Your task to perform on an android device: Search for the best rated lawnmower on Lowes.com Image 0: 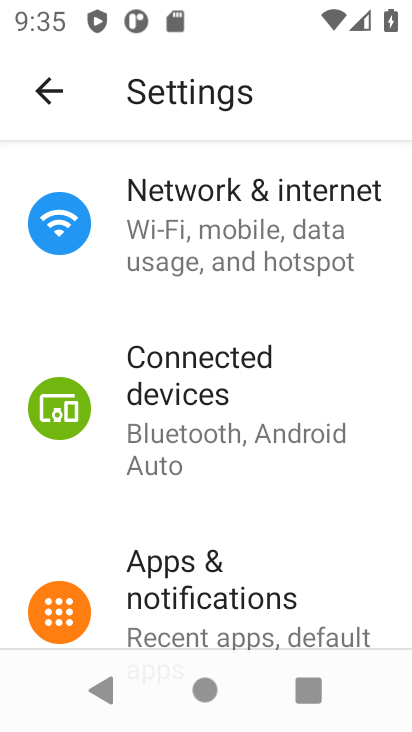
Step 0: press home button
Your task to perform on an android device: Search for the best rated lawnmower on Lowes.com Image 1: 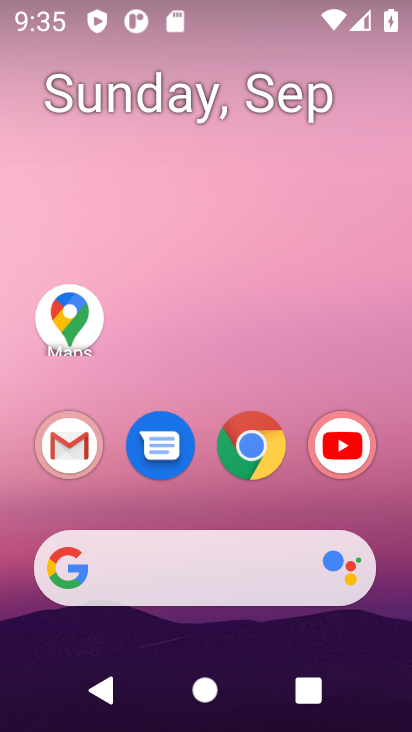
Step 1: drag from (284, 541) to (313, 6)
Your task to perform on an android device: Search for the best rated lawnmower on Lowes.com Image 2: 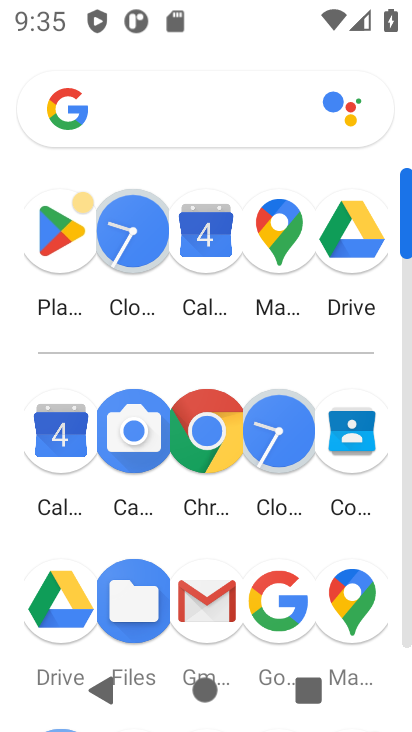
Step 2: click (220, 462)
Your task to perform on an android device: Search for the best rated lawnmower on Lowes.com Image 3: 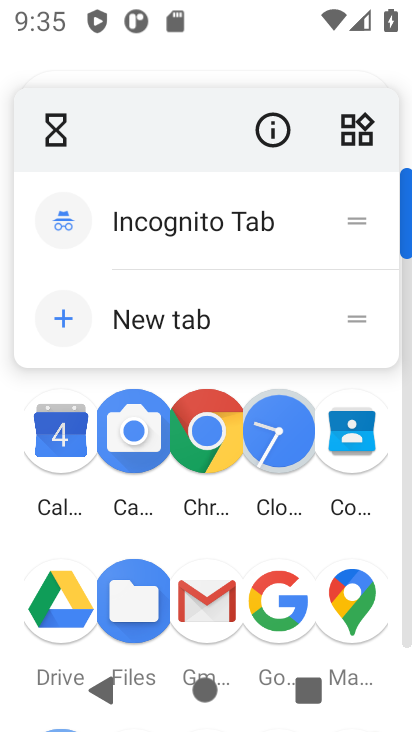
Step 3: click (216, 397)
Your task to perform on an android device: Search for the best rated lawnmower on Lowes.com Image 4: 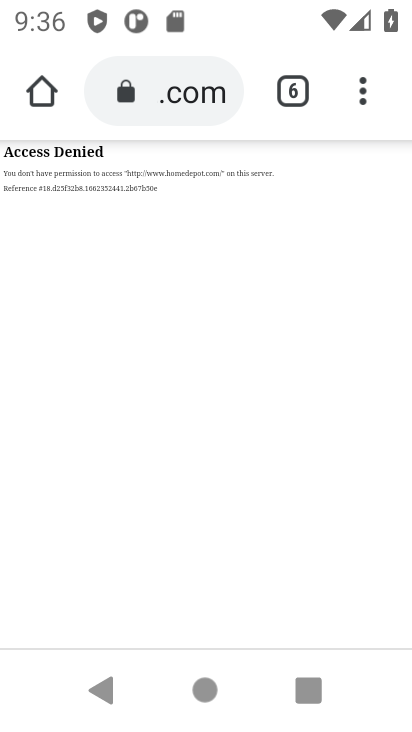
Step 4: click (206, 91)
Your task to perform on an android device: Search for the best rated lawnmower on Lowes.com Image 5: 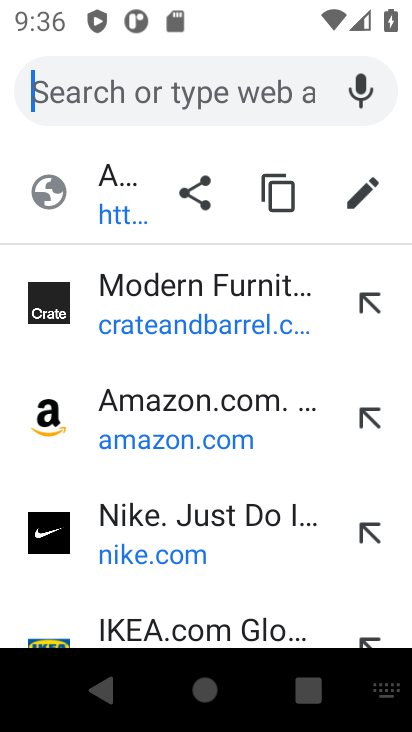
Step 5: type "Lowes.com"
Your task to perform on an android device: Search for the best rated lawnmower on Lowes.com Image 6: 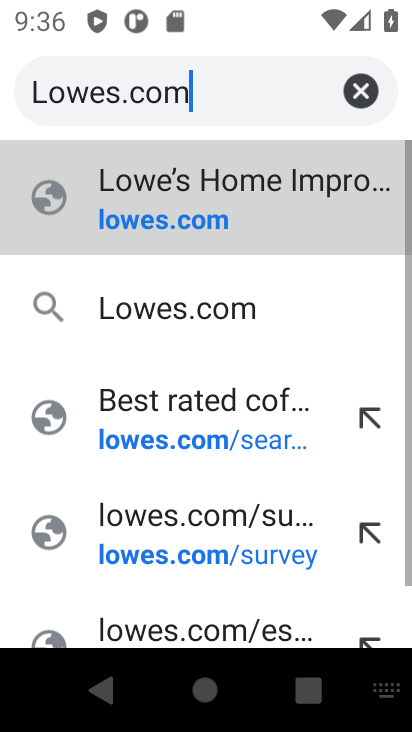
Step 6: press enter
Your task to perform on an android device: Search for the best rated lawnmower on Lowes.com Image 7: 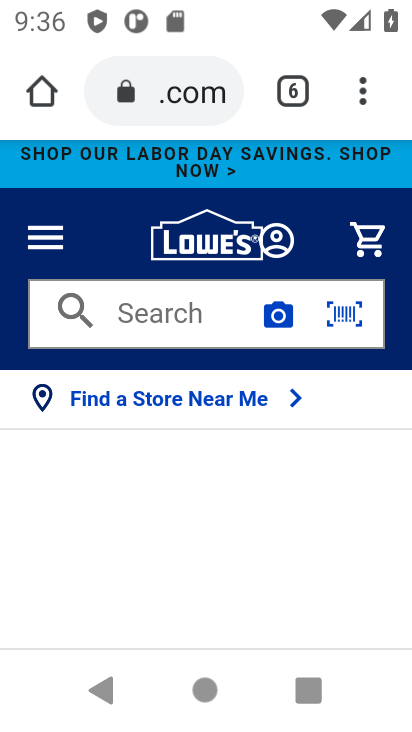
Step 7: click (175, 339)
Your task to perform on an android device: Search for the best rated lawnmower on Lowes.com Image 8: 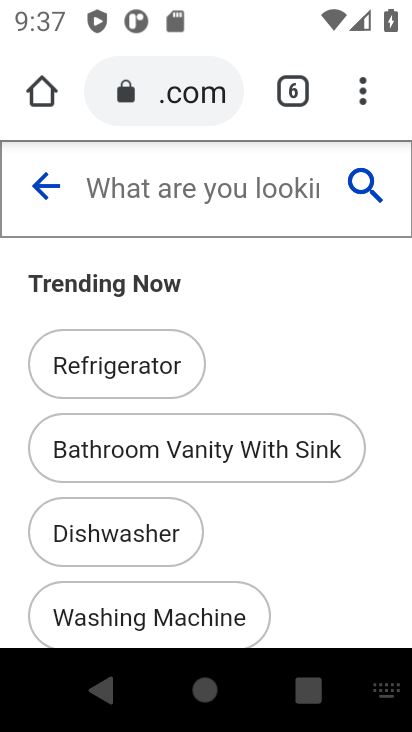
Step 8: type "best rated lawnmower"
Your task to perform on an android device: Search for the best rated lawnmower on Lowes.com Image 9: 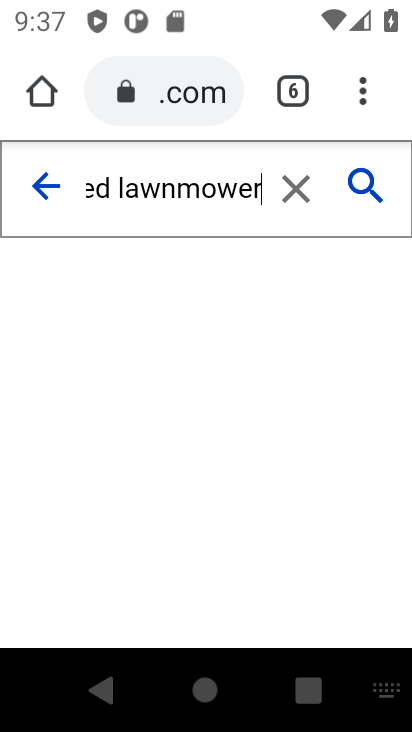
Step 9: press enter
Your task to perform on an android device: Search for the best rated lawnmower on Lowes.com Image 10: 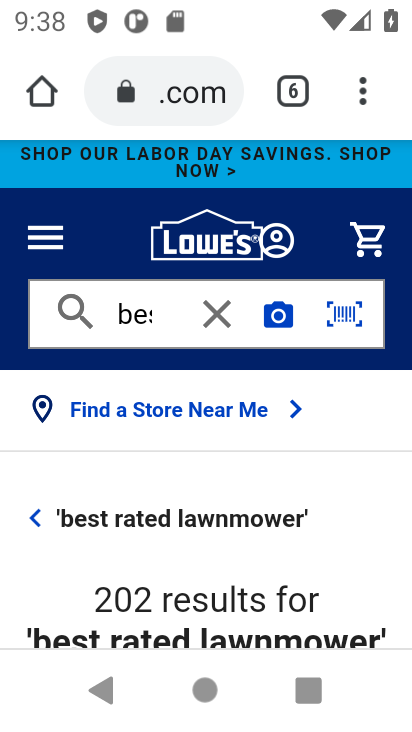
Step 10: task complete